Your task to perform on an android device: toggle improve location accuracy Image 0: 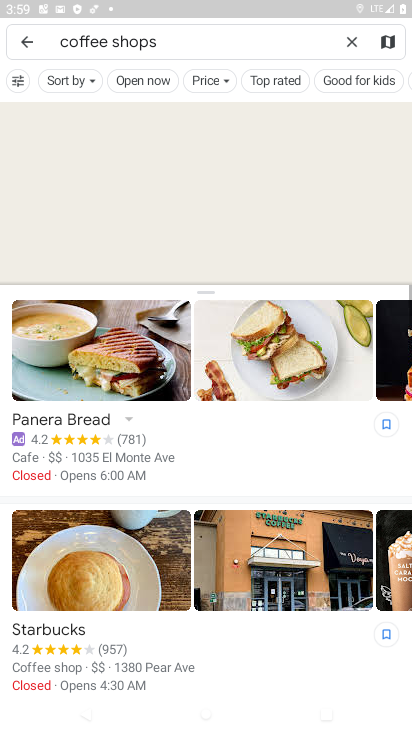
Step 0: press home button
Your task to perform on an android device: toggle improve location accuracy Image 1: 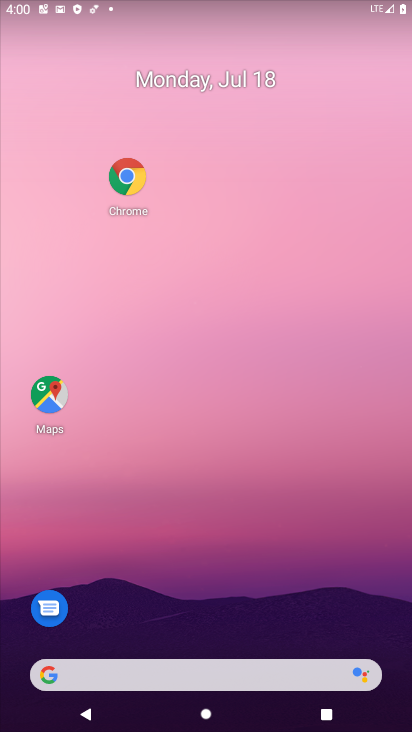
Step 1: drag from (185, 638) to (265, 215)
Your task to perform on an android device: toggle improve location accuracy Image 2: 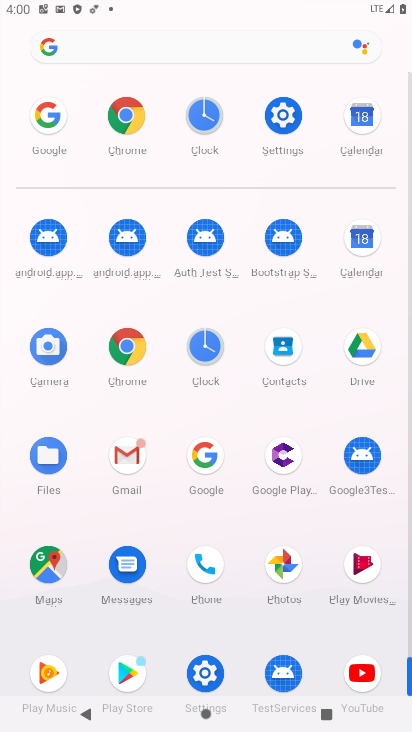
Step 2: click (274, 144)
Your task to perform on an android device: toggle improve location accuracy Image 3: 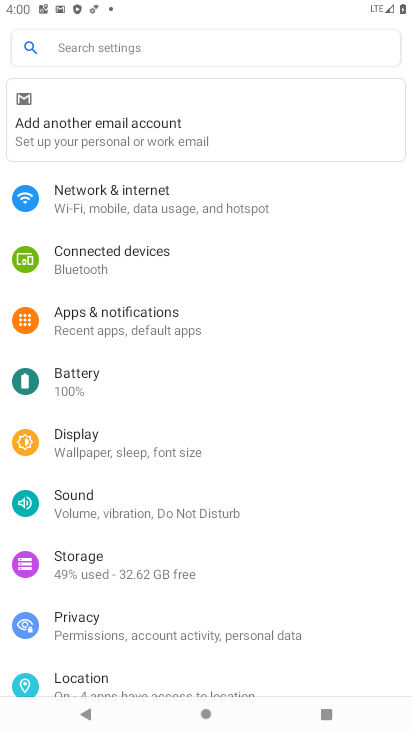
Step 3: drag from (119, 565) to (160, 263)
Your task to perform on an android device: toggle improve location accuracy Image 4: 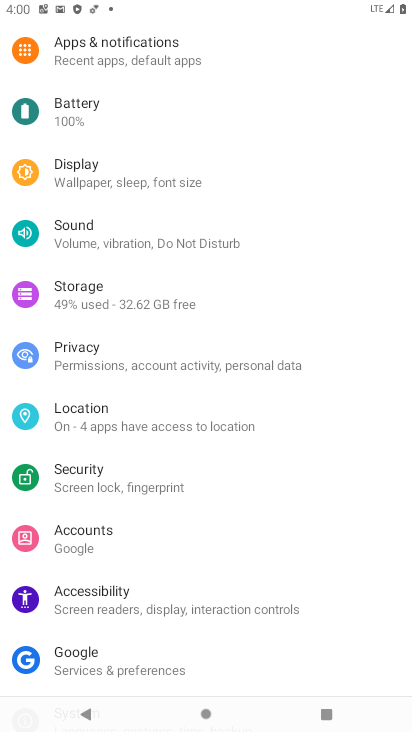
Step 4: click (129, 433)
Your task to perform on an android device: toggle improve location accuracy Image 5: 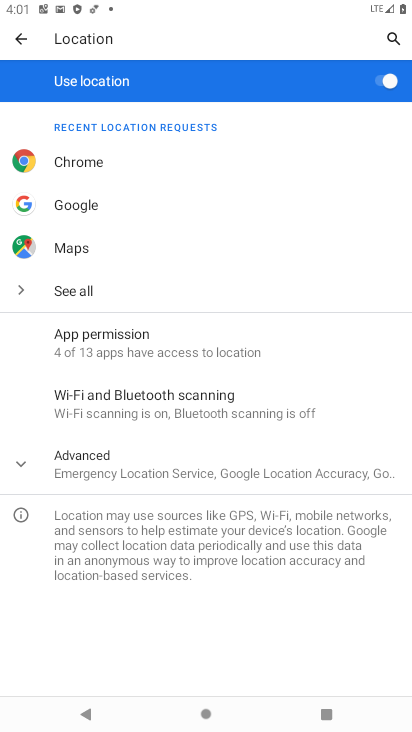
Step 5: click (133, 463)
Your task to perform on an android device: toggle improve location accuracy Image 6: 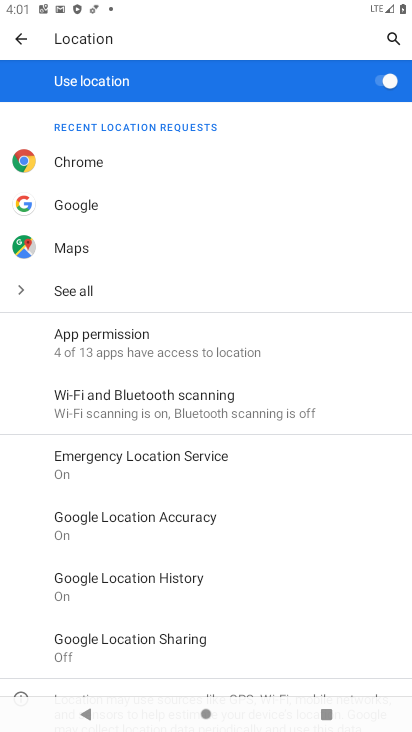
Step 6: click (182, 531)
Your task to perform on an android device: toggle improve location accuracy Image 7: 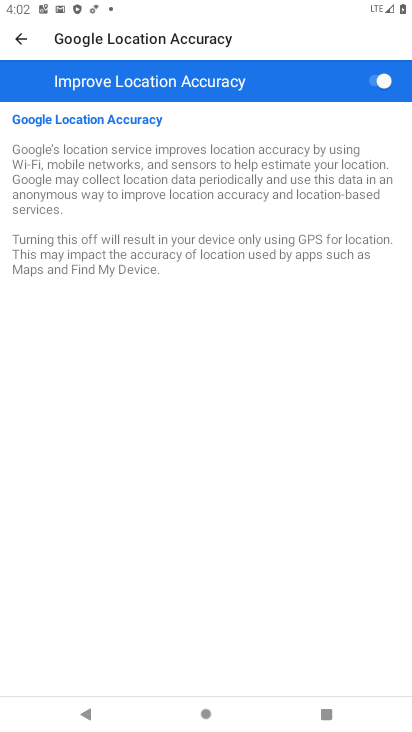
Step 7: click (362, 79)
Your task to perform on an android device: toggle improve location accuracy Image 8: 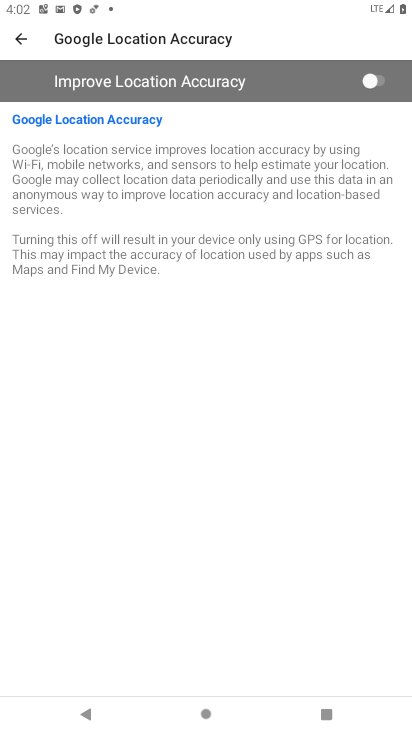
Step 8: task complete